Your task to perform on an android device: Open the stopwatch Image 0: 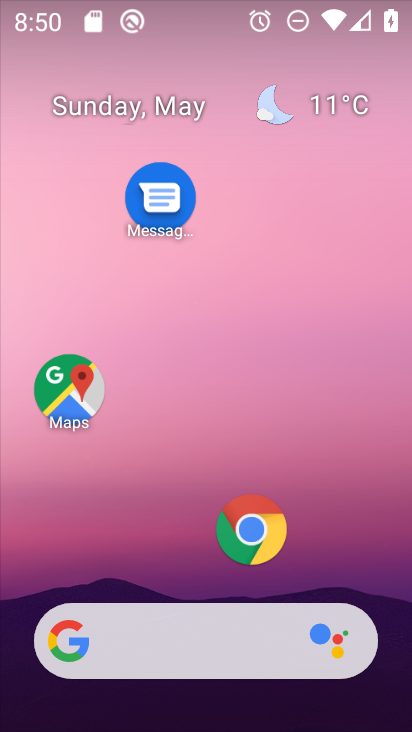
Step 0: drag from (196, 584) to (246, 27)
Your task to perform on an android device: Open the stopwatch Image 1: 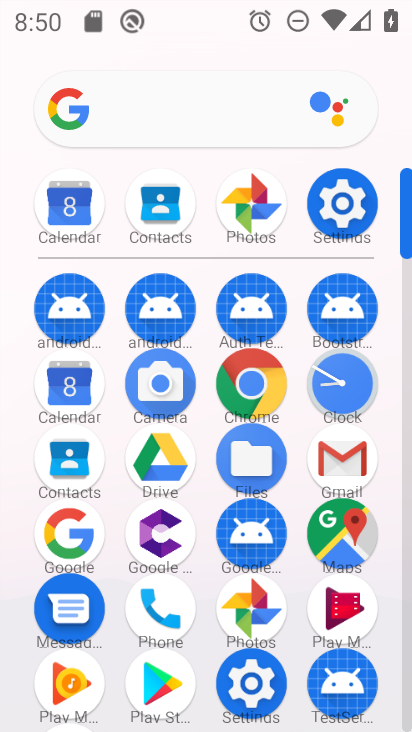
Step 1: click (340, 377)
Your task to perform on an android device: Open the stopwatch Image 2: 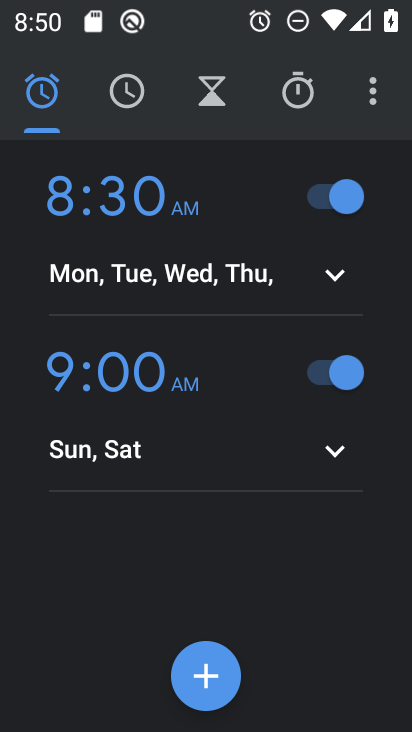
Step 2: click (285, 106)
Your task to perform on an android device: Open the stopwatch Image 3: 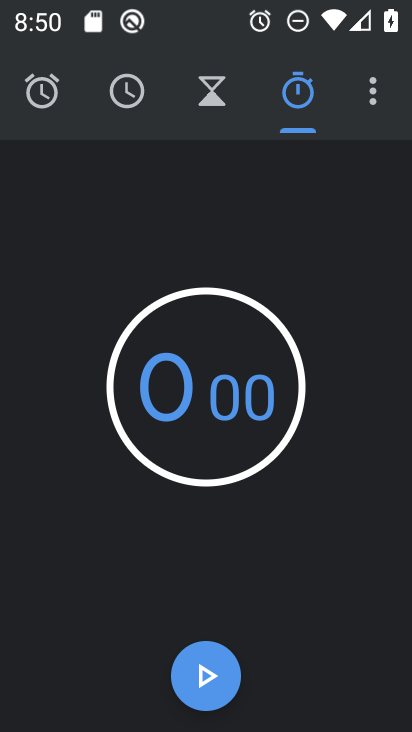
Step 3: click (205, 685)
Your task to perform on an android device: Open the stopwatch Image 4: 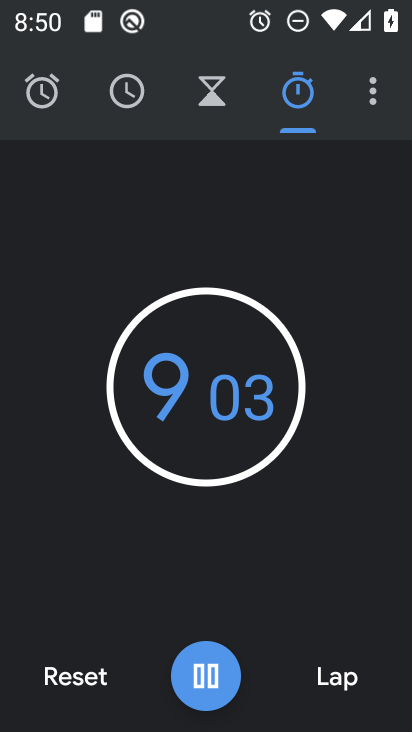
Step 4: task complete